Your task to perform on an android device: Check the weather Image 0: 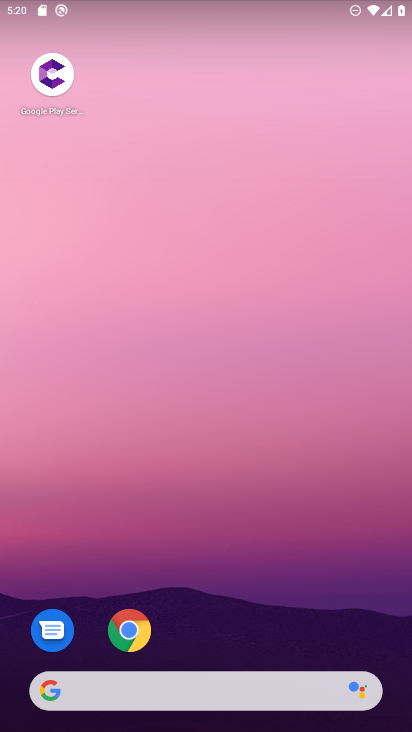
Step 0: click (139, 688)
Your task to perform on an android device: Check the weather Image 1: 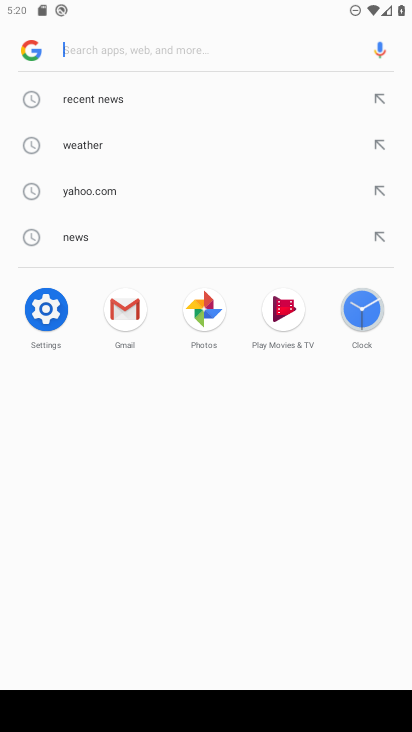
Step 1: click (74, 142)
Your task to perform on an android device: Check the weather Image 2: 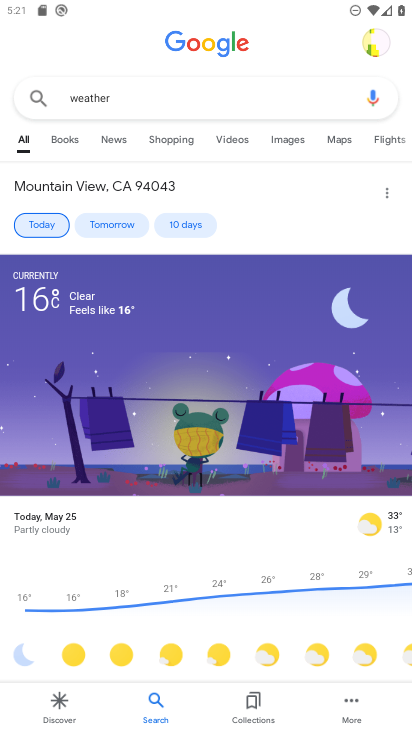
Step 2: task complete